Your task to perform on an android device: open device folders in google photos Image 0: 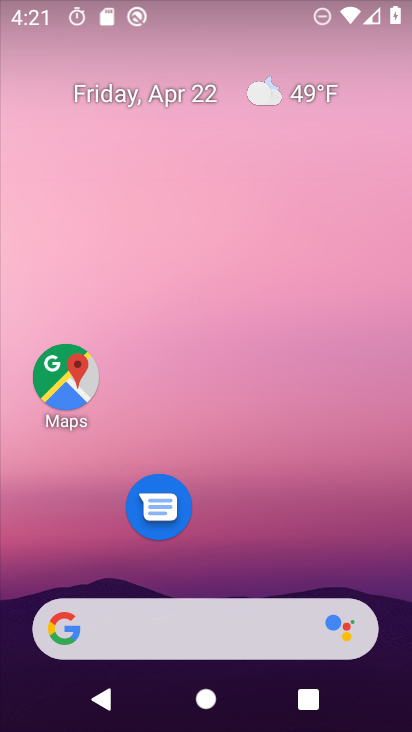
Step 0: drag from (227, 497) to (298, 57)
Your task to perform on an android device: open device folders in google photos Image 1: 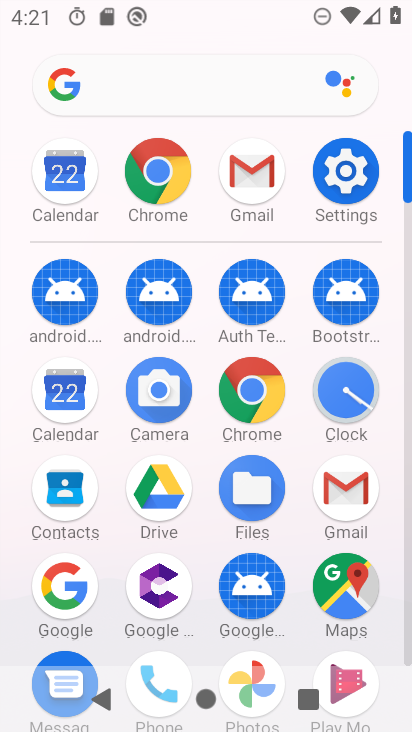
Step 1: click (255, 656)
Your task to perform on an android device: open device folders in google photos Image 2: 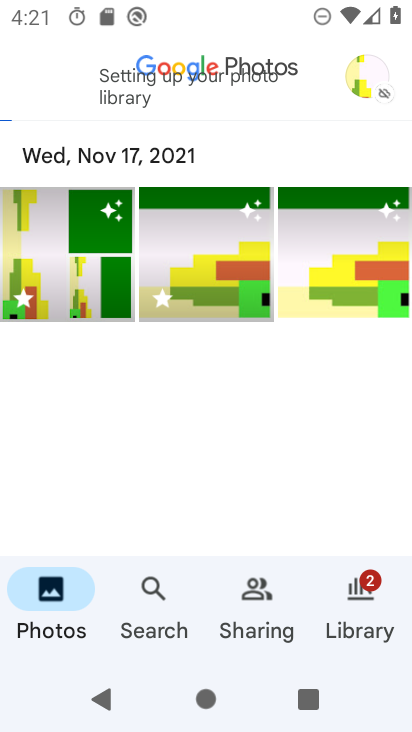
Step 2: click (375, 601)
Your task to perform on an android device: open device folders in google photos Image 3: 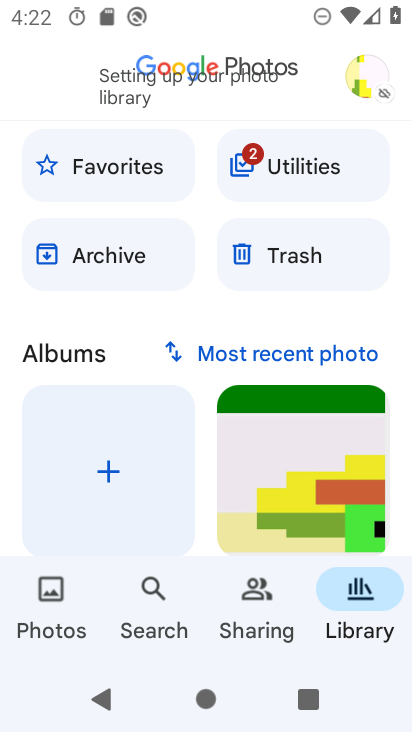
Step 3: click (256, 604)
Your task to perform on an android device: open device folders in google photos Image 4: 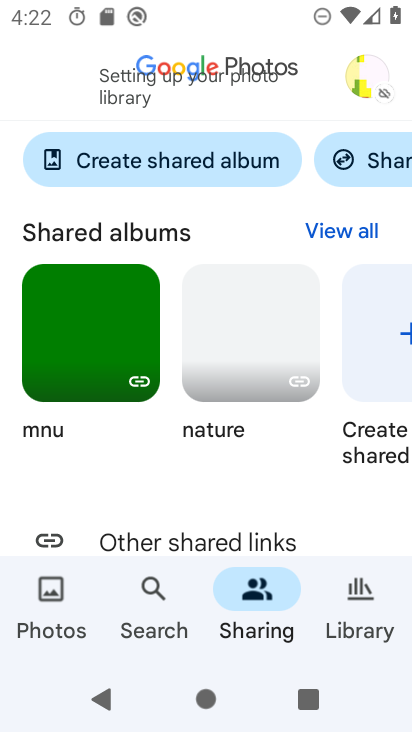
Step 4: drag from (207, 520) to (337, 74)
Your task to perform on an android device: open device folders in google photos Image 5: 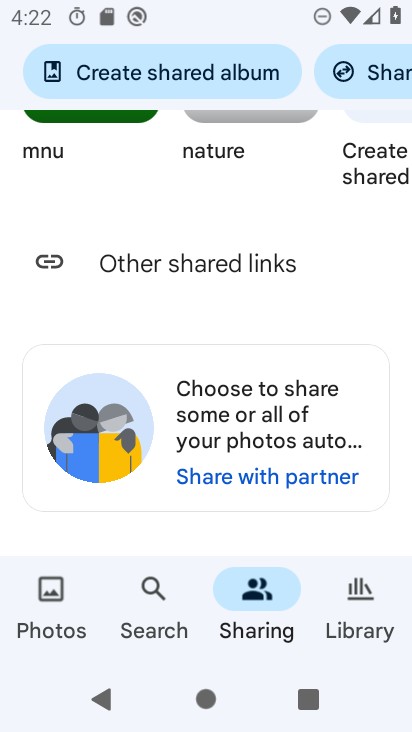
Step 5: click (342, 600)
Your task to perform on an android device: open device folders in google photos Image 6: 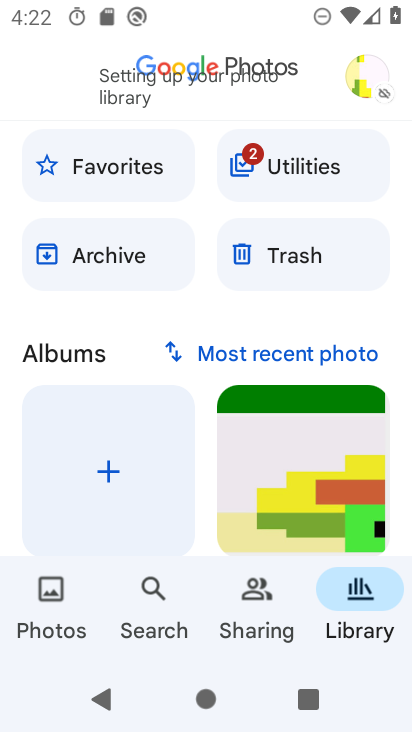
Step 6: drag from (195, 497) to (252, 77)
Your task to perform on an android device: open device folders in google photos Image 7: 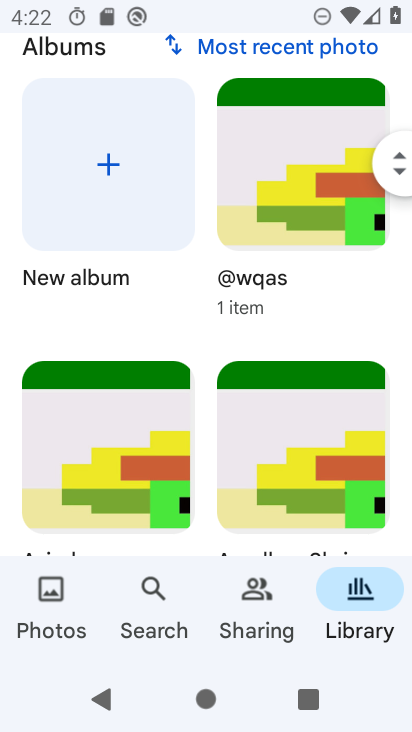
Step 7: drag from (174, 406) to (282, 64)
Your task to perform on an android device: open device folders in google photos Image 8: 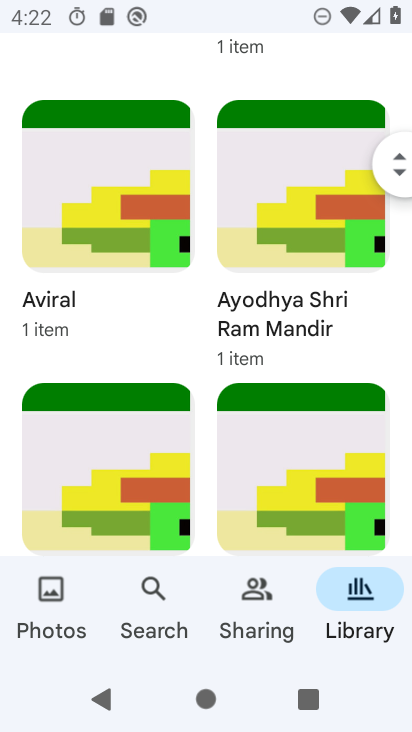
Step 8: click (56, 594)
Your task to perform on an android device: open device folders in google photos Image 9: 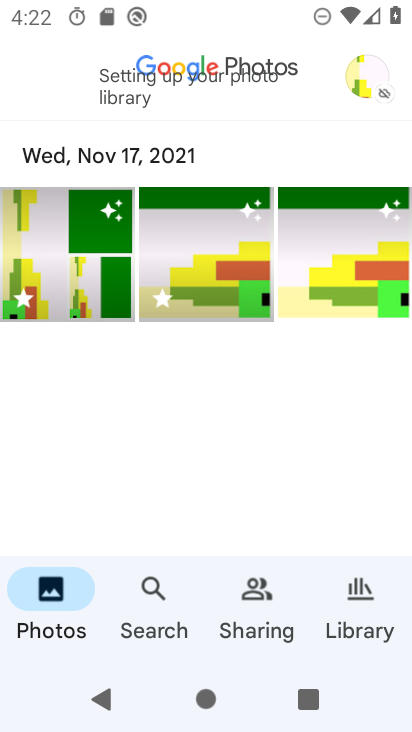
Step 9: click (106, 66)
Your task to perform on an android device: open device folders in google photos Image 10: 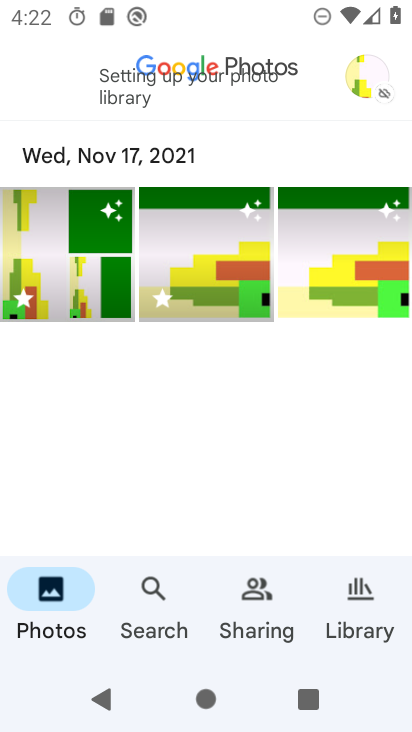
Step 10: task complete